Your task to perform on an android device: Open Youtube and go to "Your channel" Image 0: 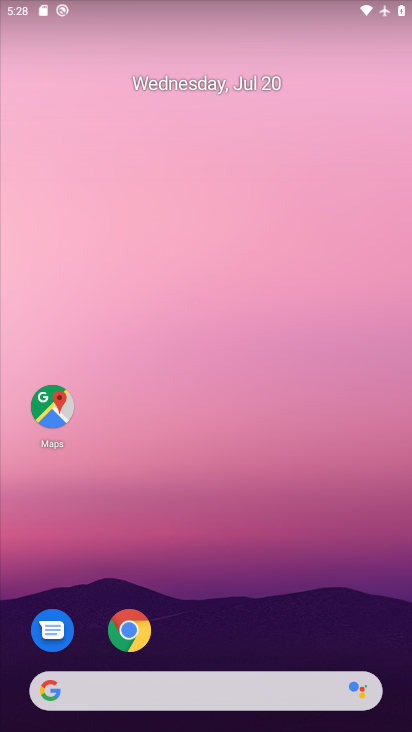
Step 0: drag from (224, 627) to (264, 169)
Your task to perform on an android device: Open Youtube and go to "Your channel" Image 1: 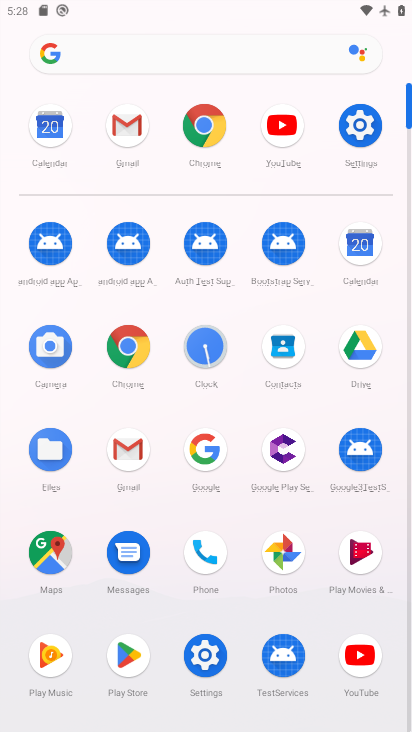
Step 1: click (348, 649)
Your task to perform on an android device: Open Youtube and go to "Your channel" Image 2: 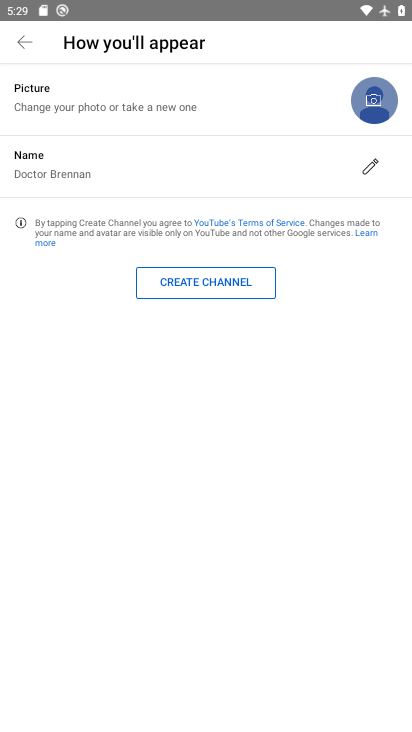
Step 2: click (22, 40)
Your task to perform on an android device: Open Youtube and go to "Your channel" Image 3: 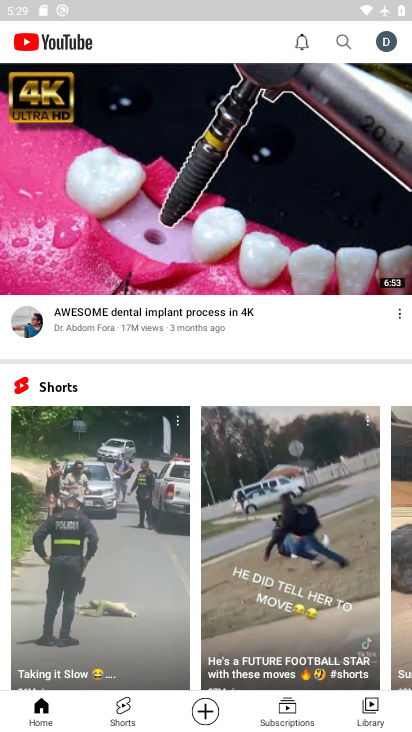
Step 3: click (383, 35)
Your task to perform on an android device: Open Youtube and go to "Your channel" Image 4: 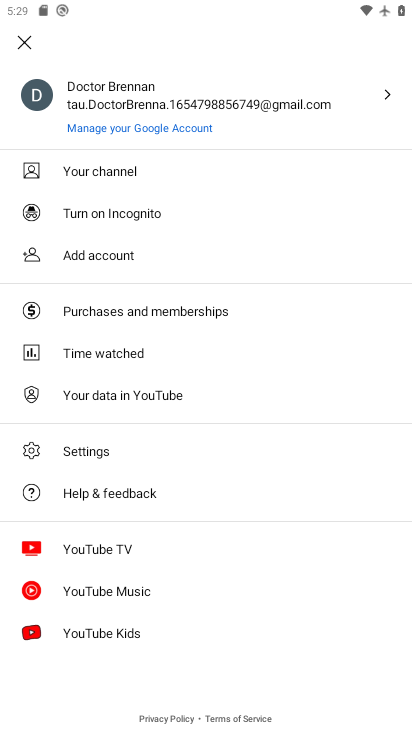
Step 4: click (97, 171)
Your task to perform on an android device: Open Youtube and go to "Your channel" Image 5: 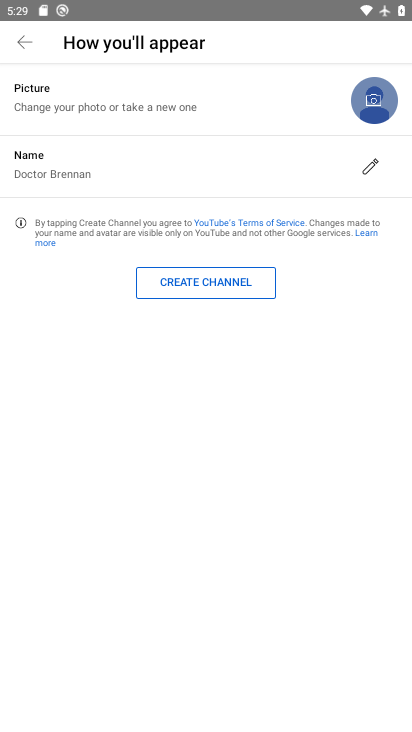
Step 5: task complete